Your task to perform on an android device: move an email to a new category in the gmail app Image 0: 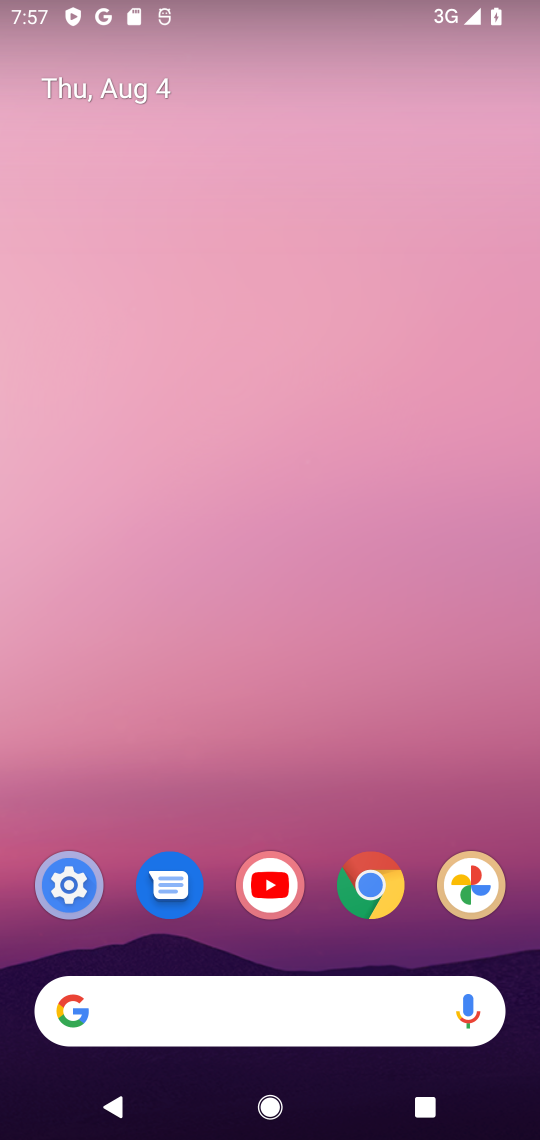
Step 0: drag from (268, 812) to (314, 93)
Your task to perform on an android device: move an email to a new category in the gmail app Image 1: 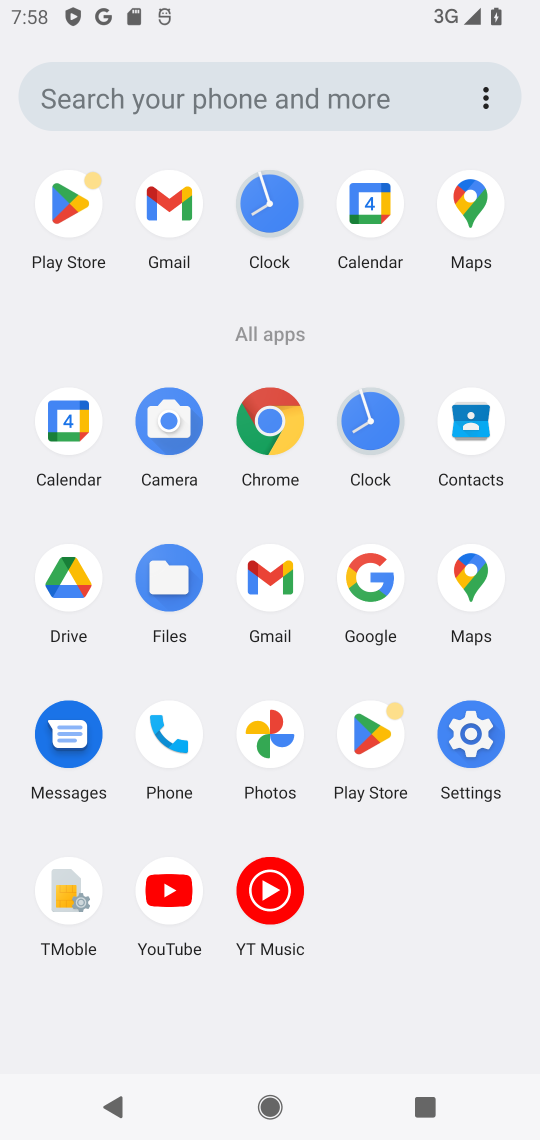
Step 1: click (266, 563)
Your task to perform on an android device: move an email to a new category in the gmail app Image 2: 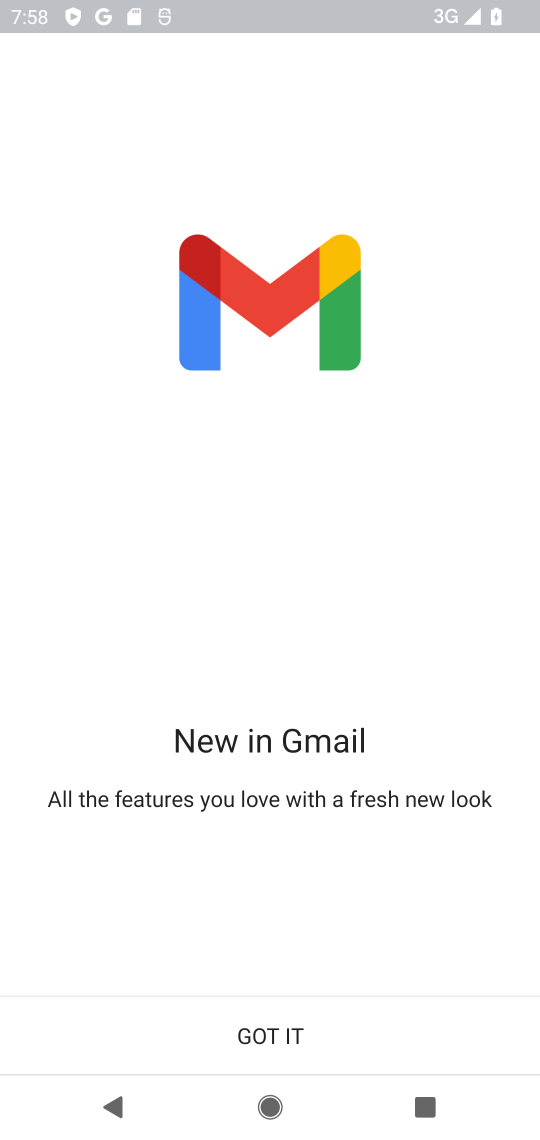
Step 2: click (258, 1019)
Your task to perform on an android device: move an email to a new category in the gmail app Image 3: 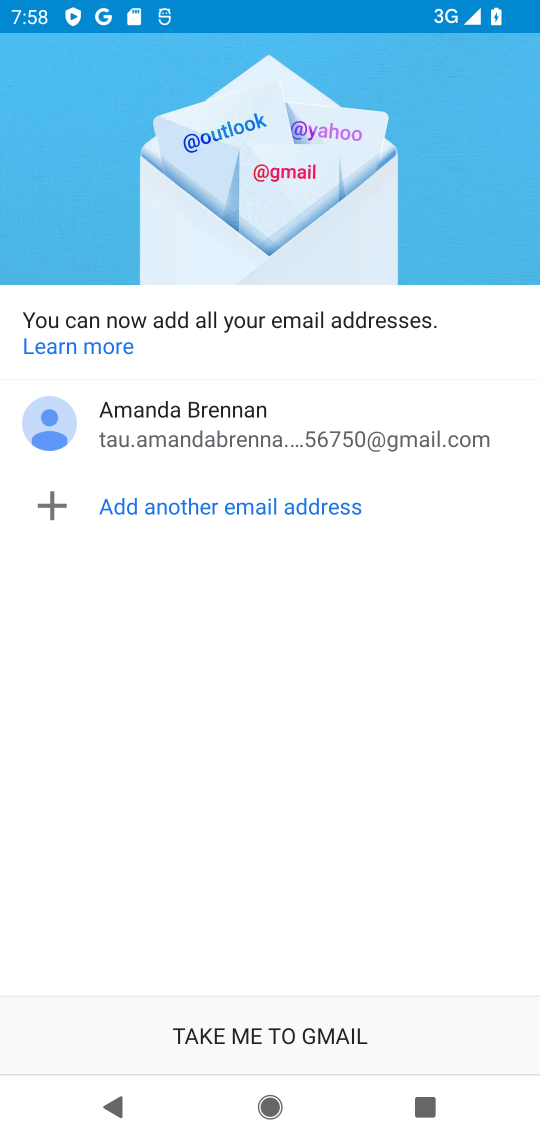
Step 3: click (256, 1033)
Your task to perform on an android device: move an email to a new category in the gmail app Image 4: 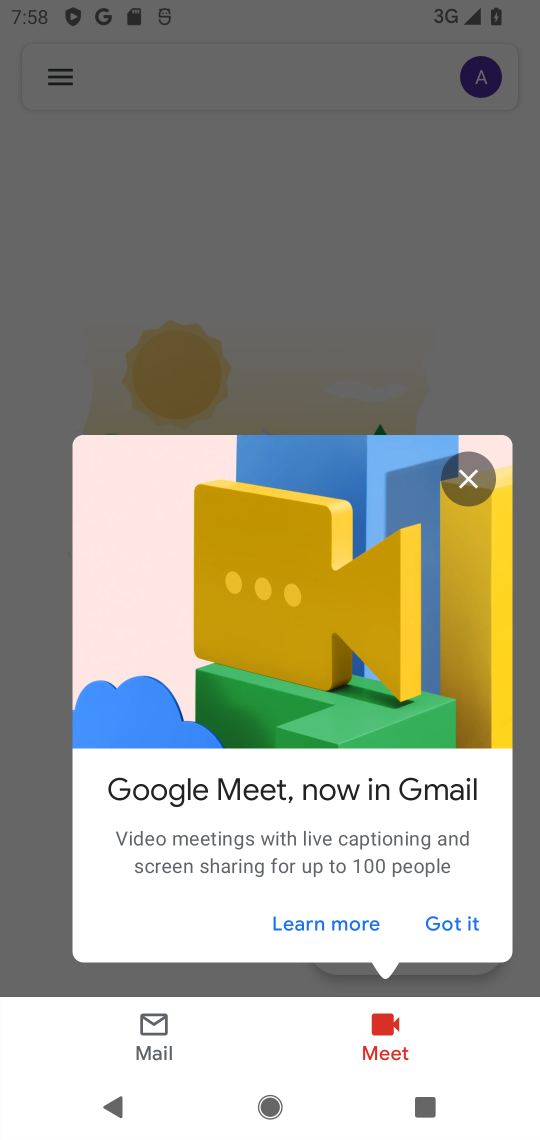
Step 4: click (442, 933)
Your task to perform on an android device: move an email to a new category in the gmail app Image 5: 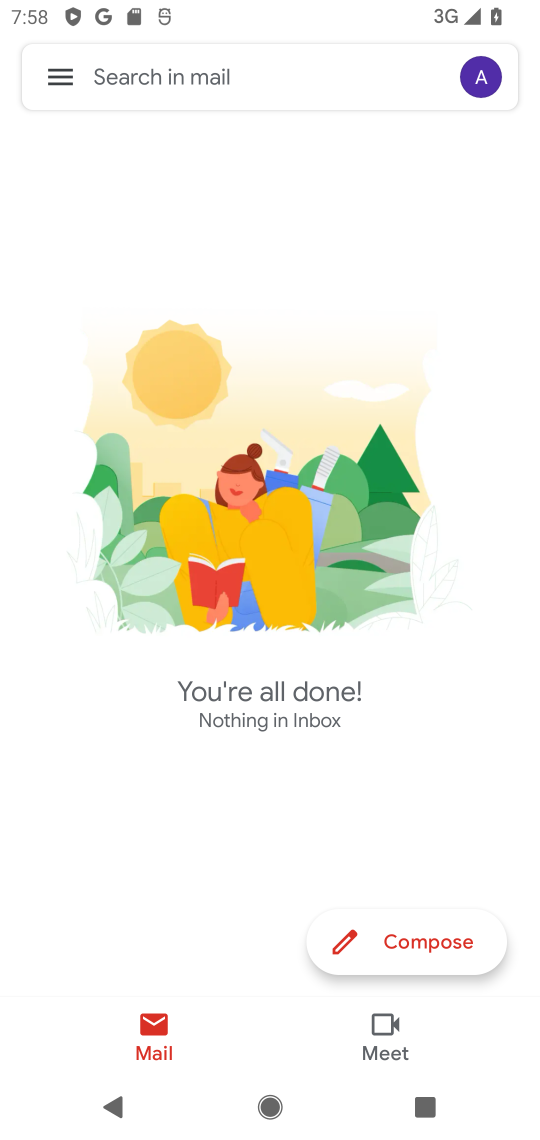
Step 5: task complete